Your task to perform on an android device: open app "Adobe Acrobat Reader" Image 0: 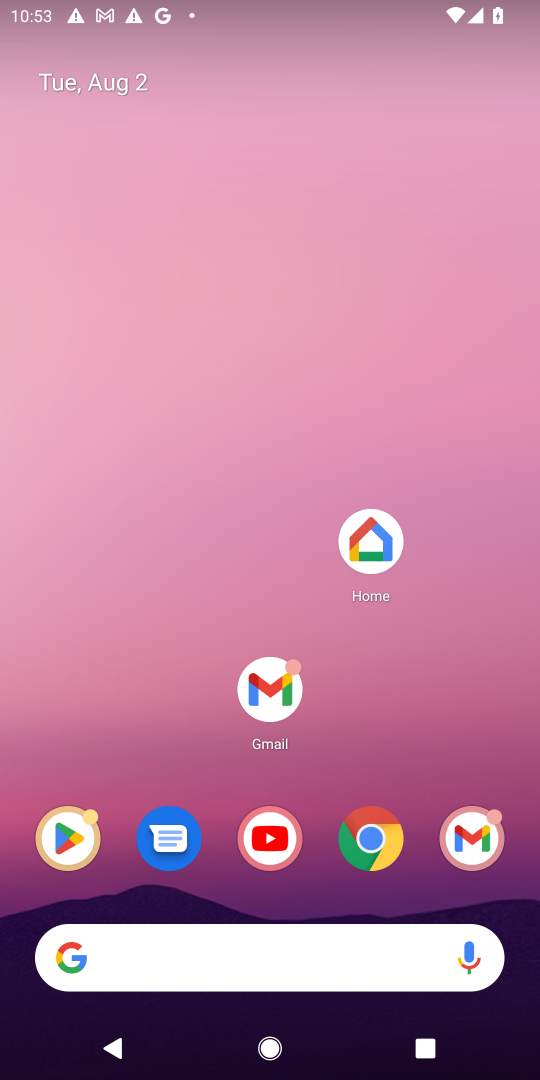
Step 0: press home button
Your task to perform on an android device: open app "Adobe Acrobat Reader" Image 1: 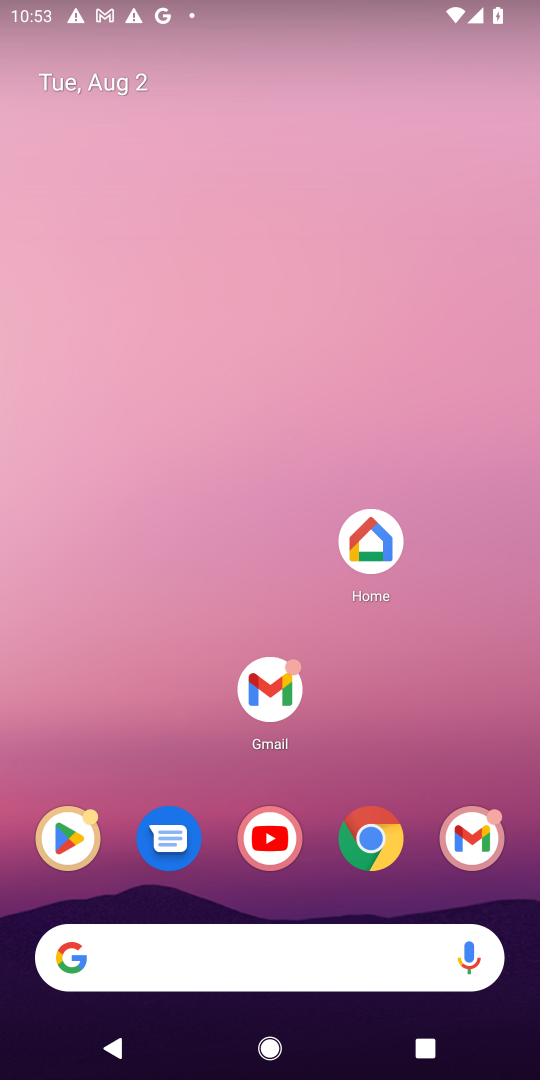
Step 1: drag from (425, 737) to (388, 195)
Your task to perform on an android device: open app "Adobe Acrobat Reader" Image 2: 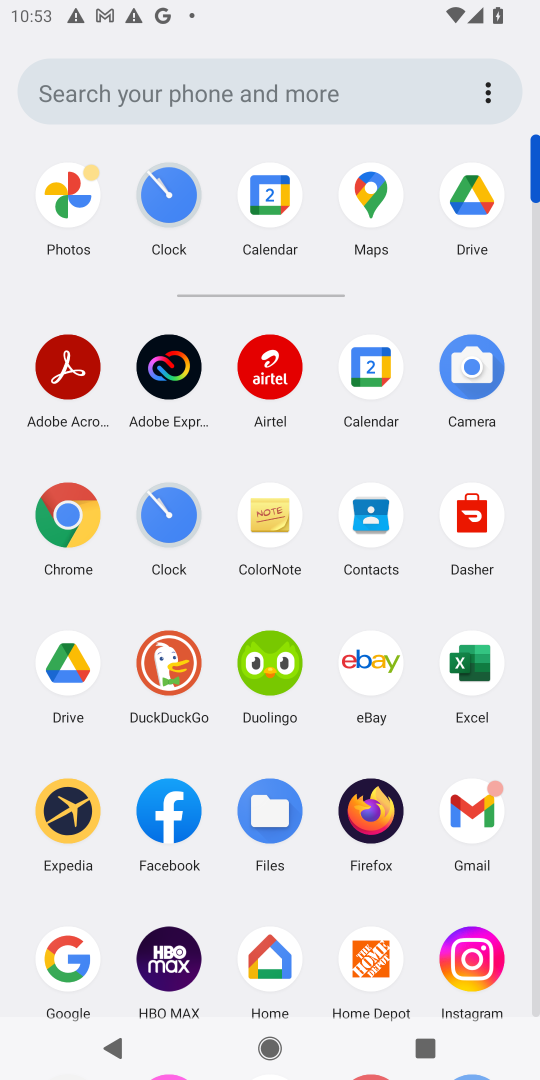
Step 2: drag from (316, 899) to (325, 465)
Your task to perform on an android device: open app "Adobe Acrobat Reader" Image 3: 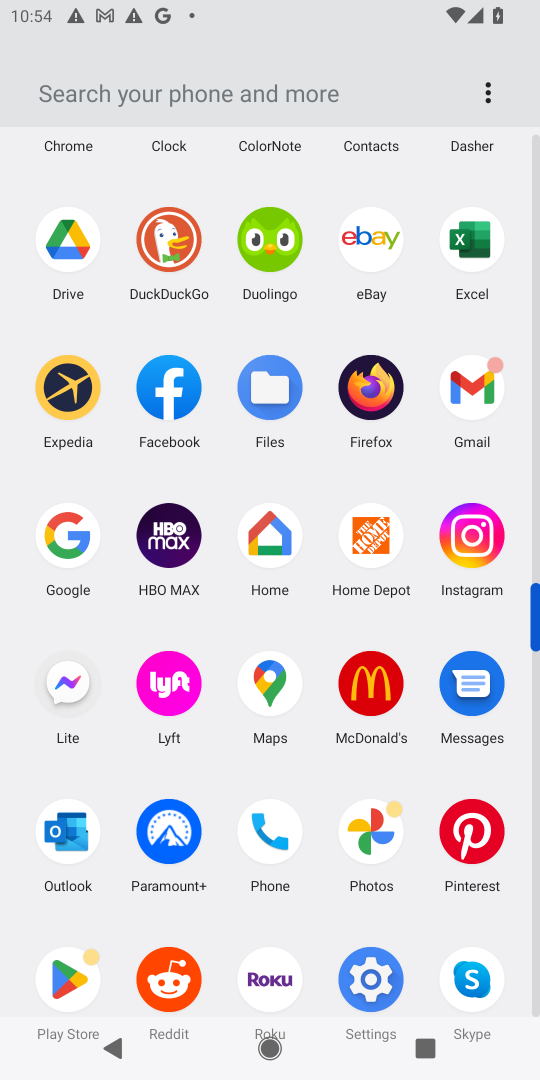
Step 3: click (64, 977)
Your task to perform on an android device: open app "Adobe Acrobat Reader" Image 4: 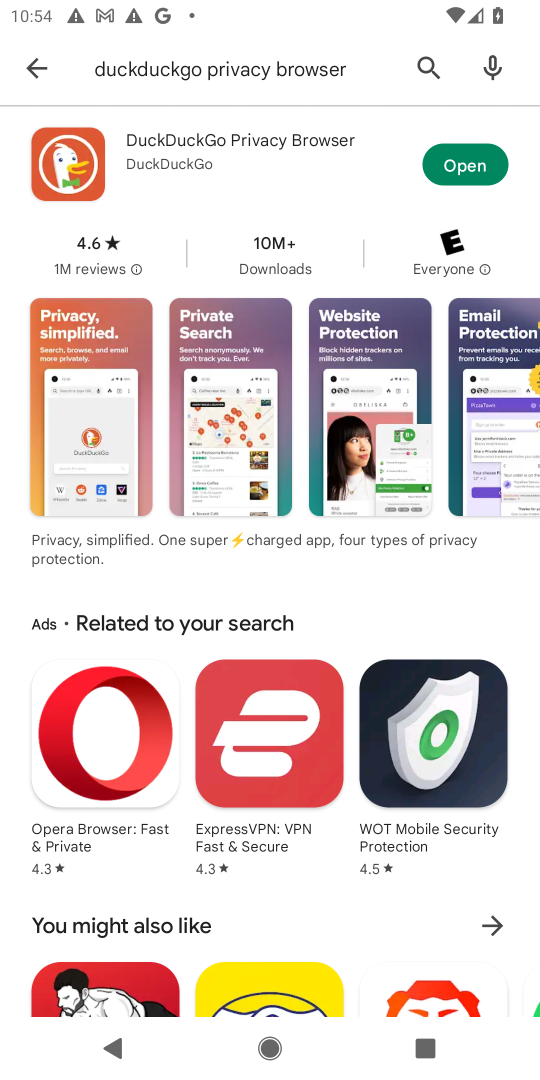
Step 4: click (424, 64)
Your task to perform on an android device: open app "Adobe Acrobat Reader" Image 5: 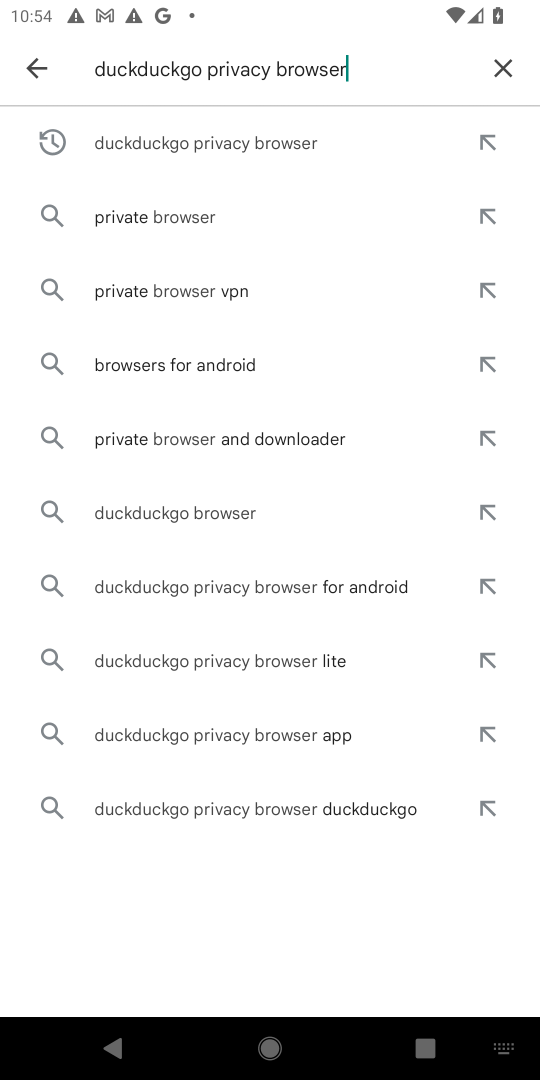
Step 5: click (504, 73)
Your task to perform on an android device: open app "Adobe Acrobat Reader" Image 6: 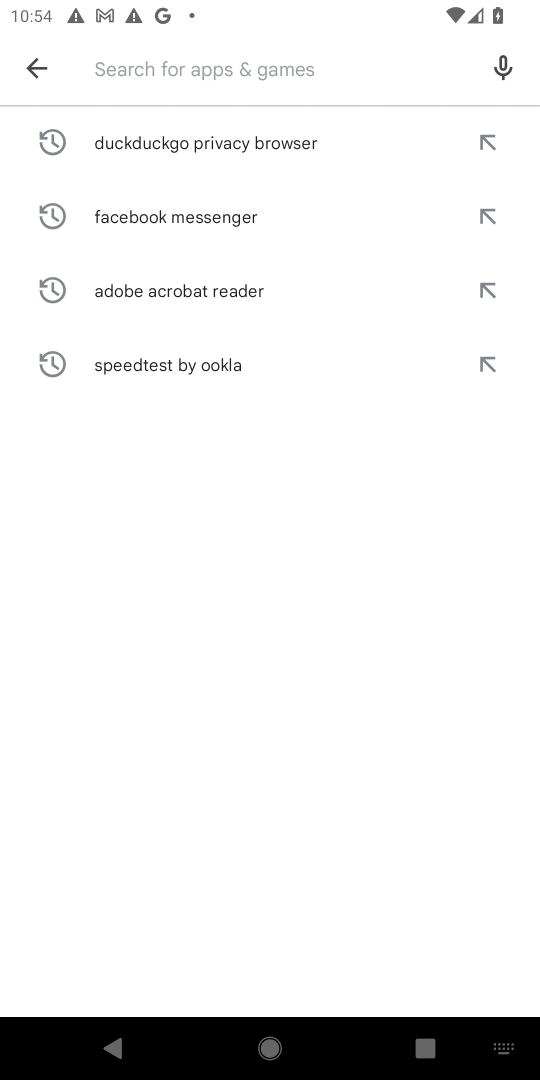
Step 6: click (367, 64)
Your task to perform on an android device: open app "Adobe Acrobat Reader" Image 7: 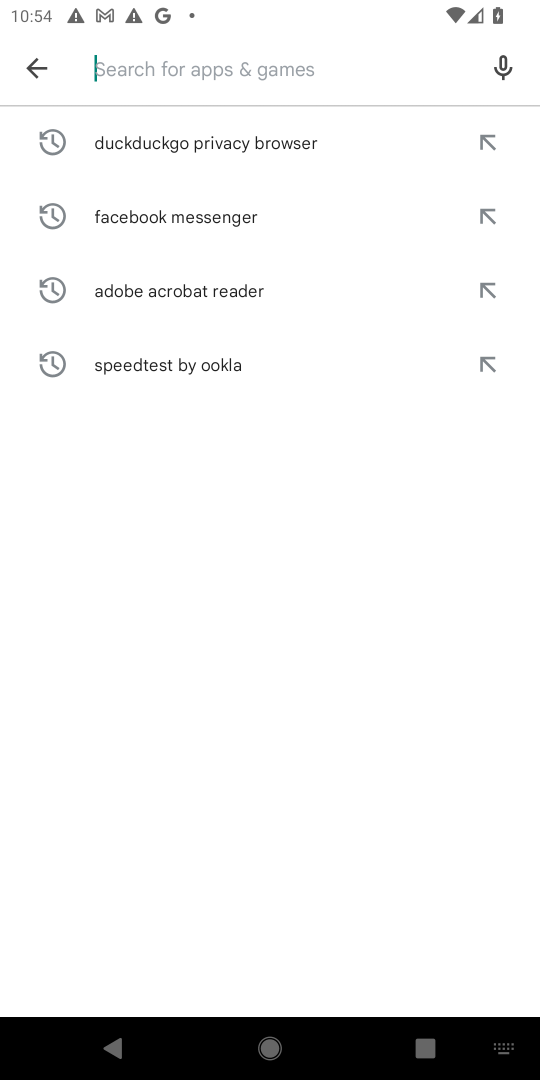
Step 7: type "adobe acrobat reader"
Your task to perform on an android device: open app "Adobe Acrobat Reader" Image 8: 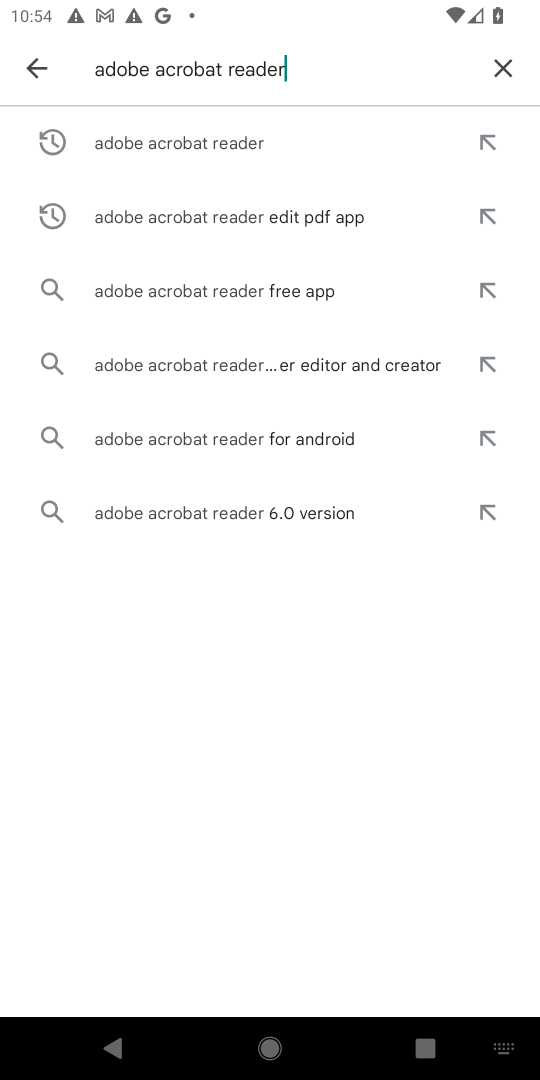
Step 8: click (277, 136)
Your task to perform on an android device: open app "Adobe Acrobat Reader" Image 9: 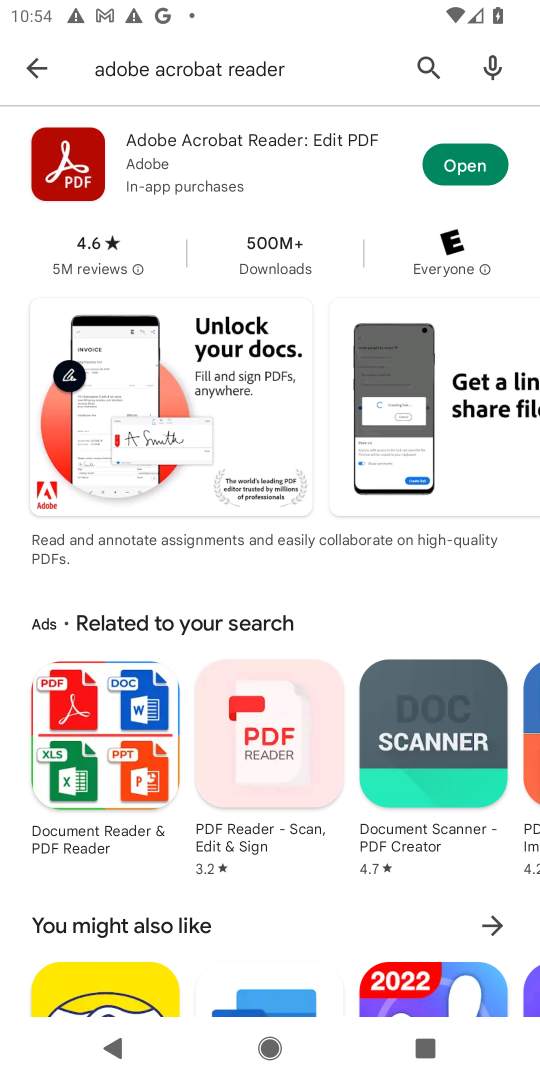
Step 9: click (486, 158)
Your task to perform on an android device: open app "Adobe Acrobat Reader" Image 10: 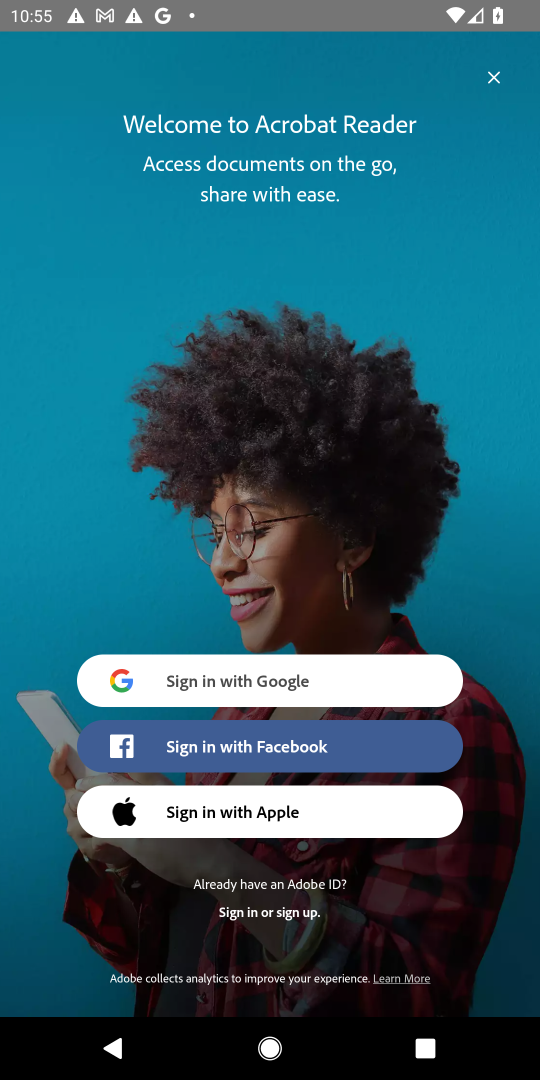
Step 10: task complete